Your task to perform on an android device: turn pop-ups on in chrome Image 0: 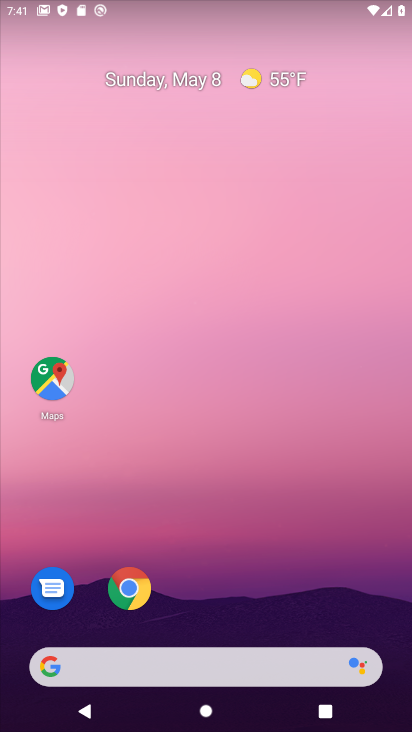
Step 0: drag from (340, 615) to (223, 3)
Your task to perform on an android device: turn pop-ups on in chrome Image 1: 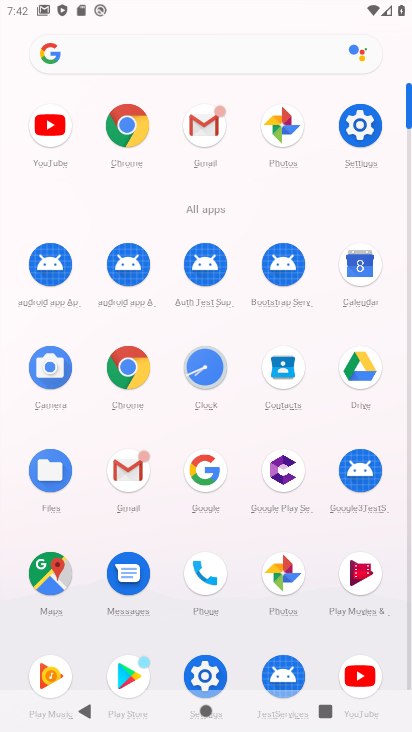
Step 1: click (119, 361)
Your task to perform on an android device: turn pop-ups on in chrome Image 2: 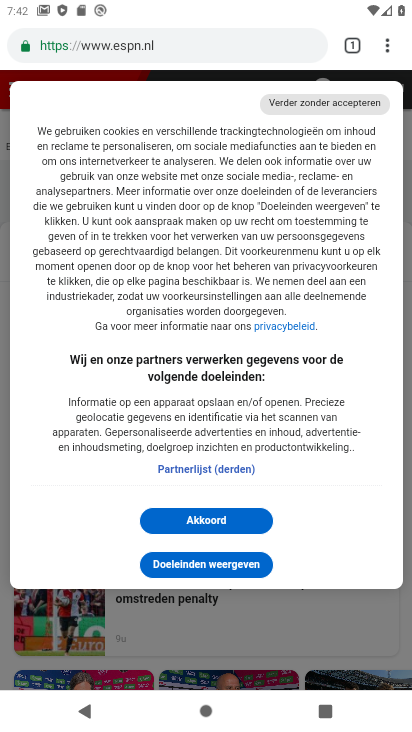
Step 2: press back button
Your task to perform on an android device: turn pop-ups on in chrome Image 3: 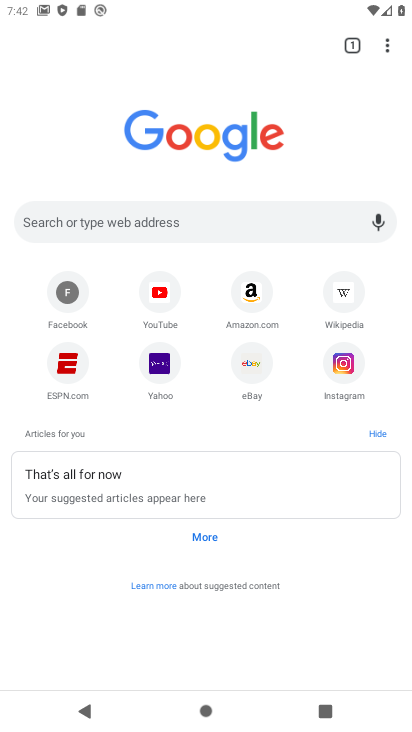
Step 3: click (387, 43)
Your task to perform on an android device: turn pop-ups on in chrome Image 4: 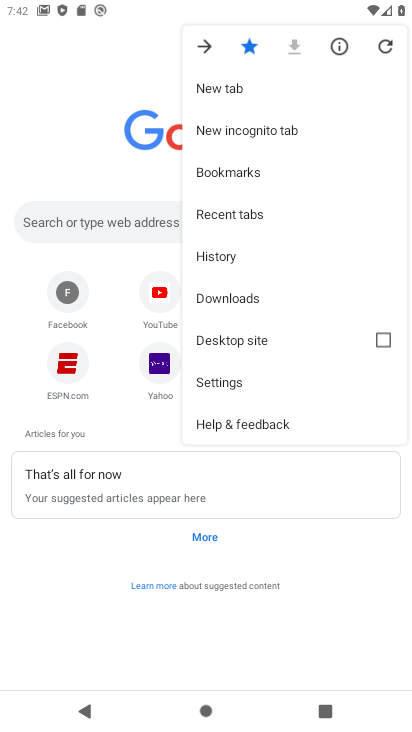
Step 4: click (268, 381)
Your task to perform on an android device: turn pop-ups on in chrome Image 5: 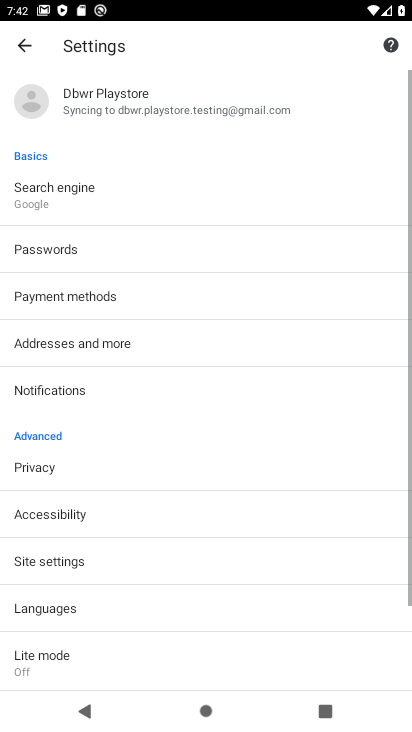
Step 5: click (89, 554)
Your task to perform on an android device: turn pop-ups on in chrome Image 6: 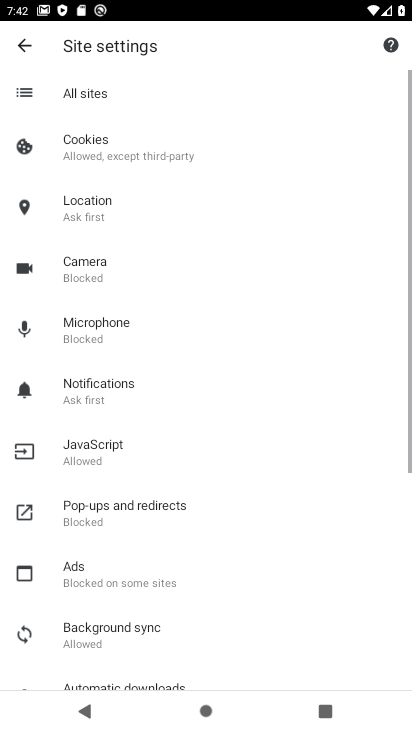
Step 6: click (117, 523)
Your task to perform on an android device: turn pop-ups on in chrome Image 7: 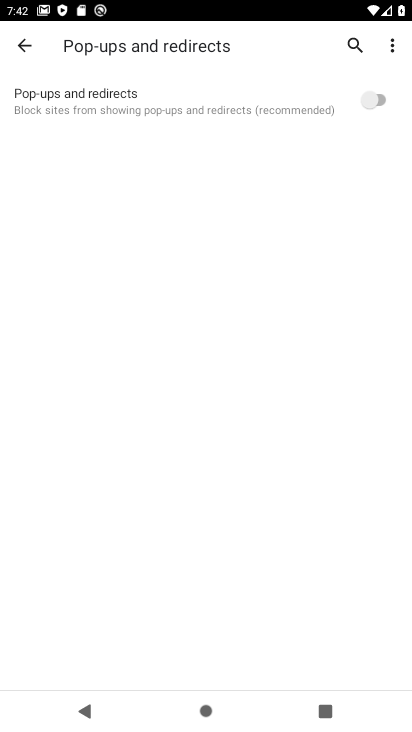
Step 7: click (347, 97)
Your task to perform on an android device: turn pop-ups on in chrome Image 8: 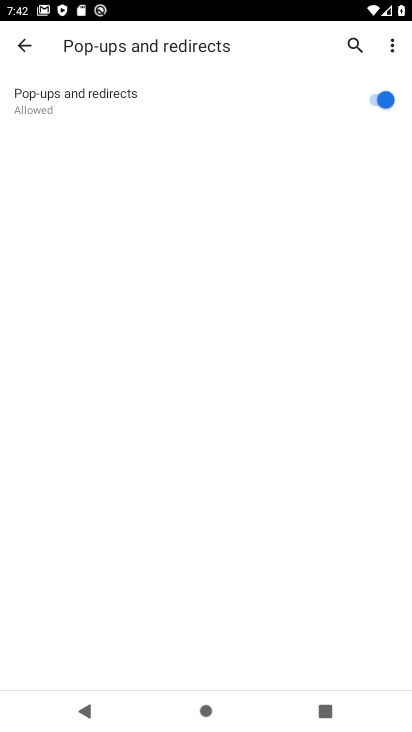
Step 8: task complete